Your task to perform on an android device: change keyboard looks Image 0: 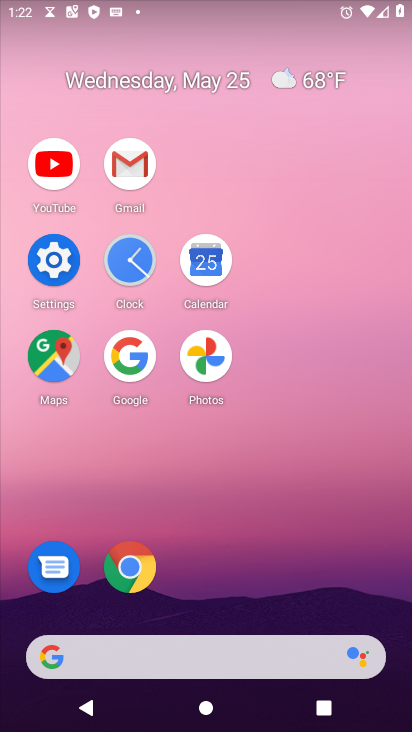
Step 0: click (52, 265)
Your task to perform on an android device: change keyboard looks Image 1: 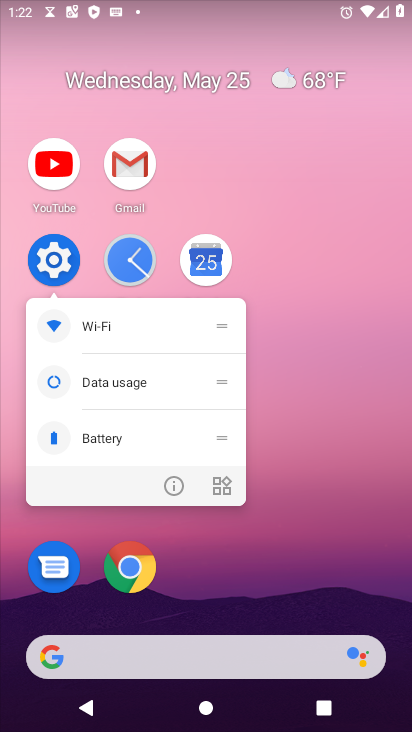
Step 1: click (61, 254)
Your task to perform on an android device: change keyboard looks Image 2: 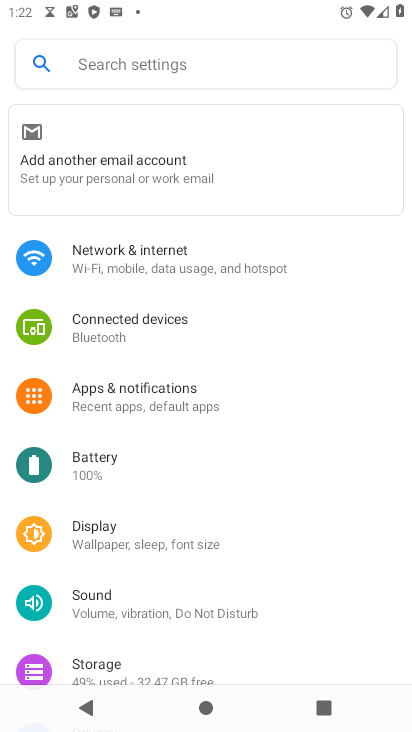
Step 2: drag from (279, 556) to (223, 117)
Your task to perform on an android device: change keyboard looks Image 3: 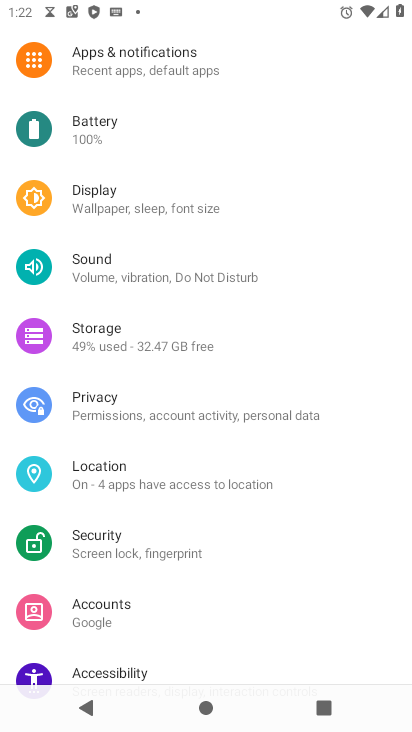
Step 3: drag from (264, 551) to (280, 177)
Your task to perform on an android device: change keyboard looks Image 4: 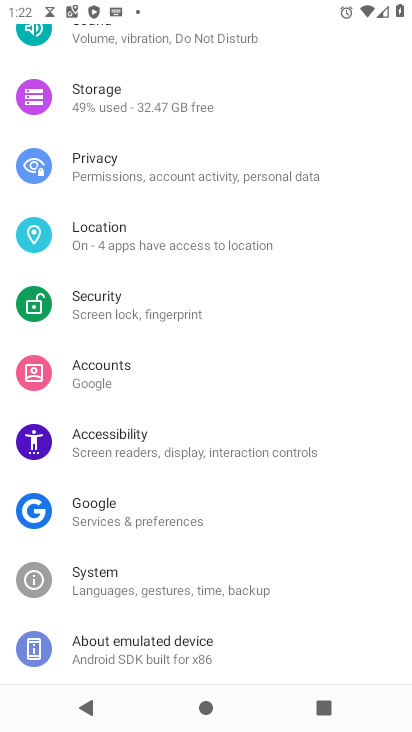
Step 4: drag from (223, 543) to (272, 199)
Your task to perform on an android device: change keyboard looks Image 5: 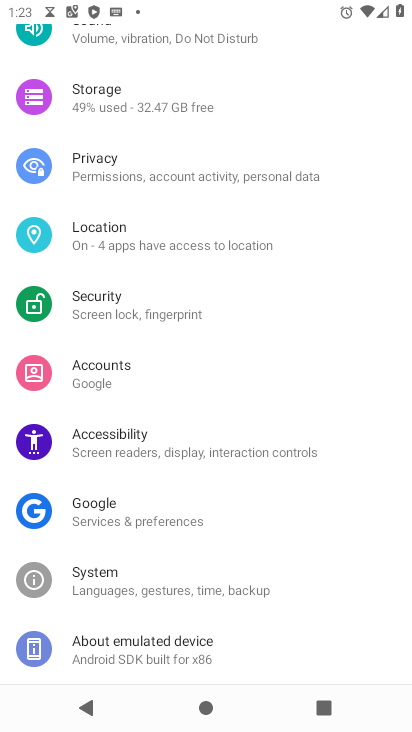
Step 5: click (138, 578)
Your task to perform on an android device: change keyboard looks Image 6: 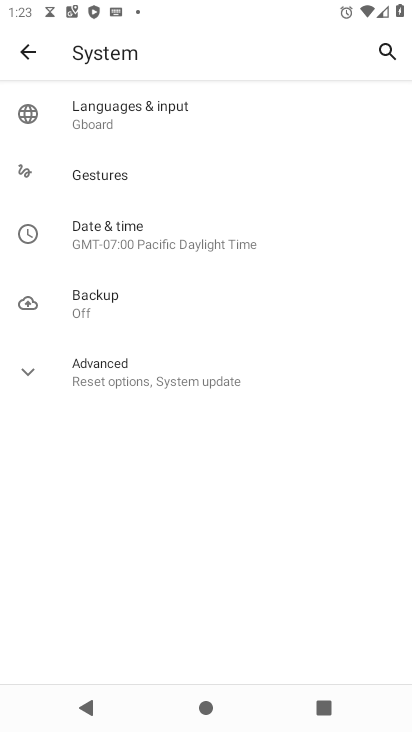
Step 6: click (111, 105)
Your task to perform on an android device: change keyboard looks Image 7: 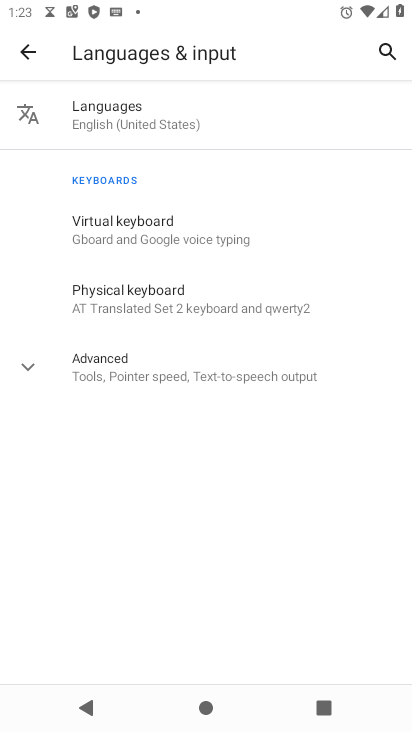
Step 7: click (148, 220)
Your task to perform on an android device: change keyboard looks Image 8: 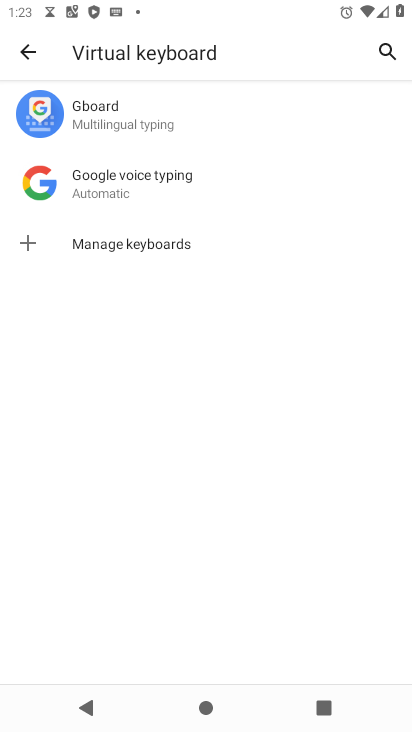
Step 8: click (116, 132)
Your task to perform on an android device: change keyboard looks Image 9: 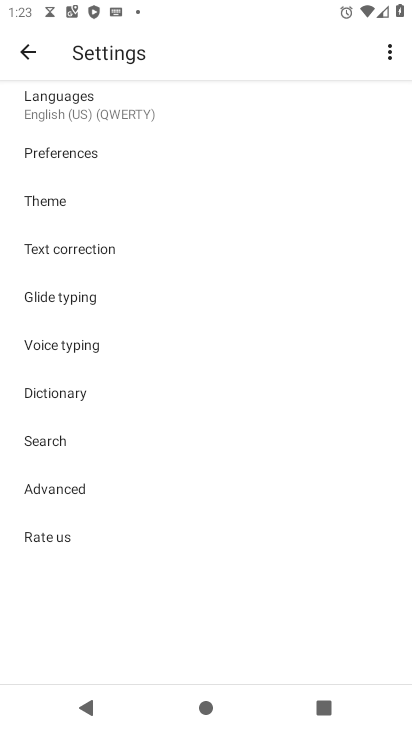
Step 9: click (92, 190)
Your task to perform on an android device: change keyboard looks Image 10: 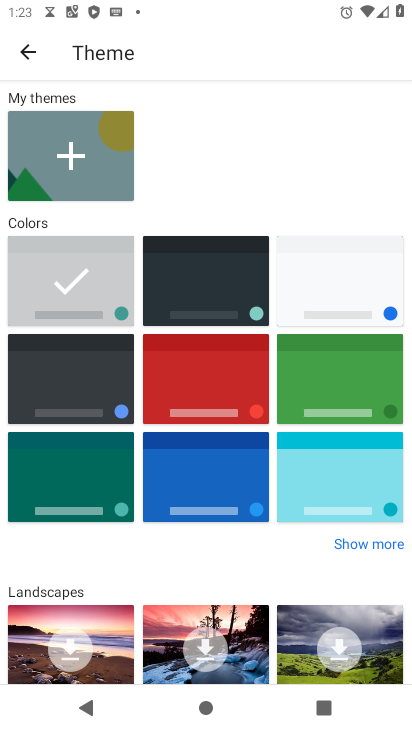
Step 10: click (236, 312)
Your task to perform on an android device: change keyboard looks Image 11: 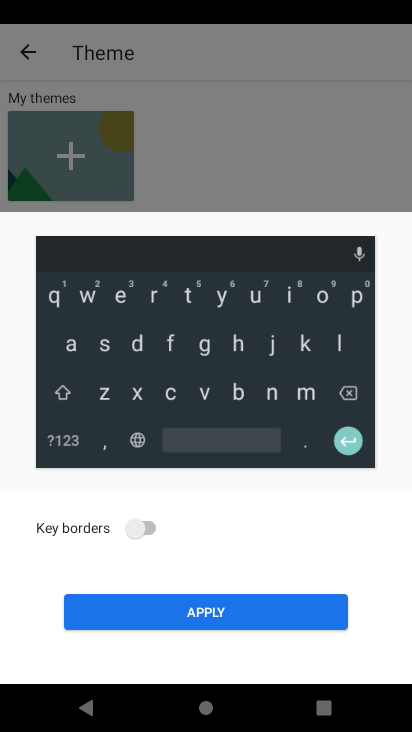
Step 11: click (152, 523)
Your task to perform on an android device: change keyboard looks Image 12: 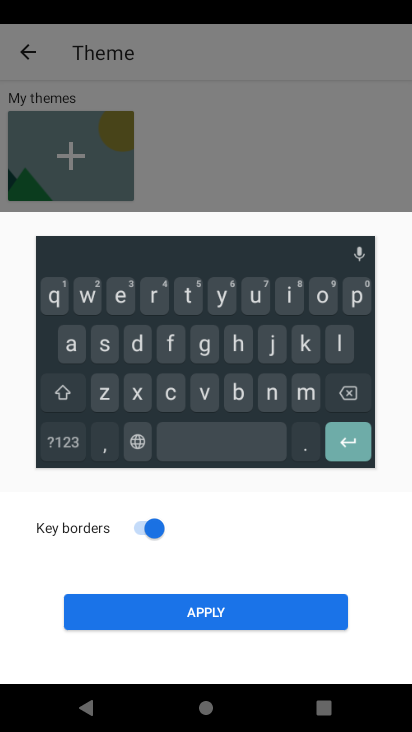
Step 12: click (290, 615)
Your task to perform on an android device: change keyboard looks Image 13: 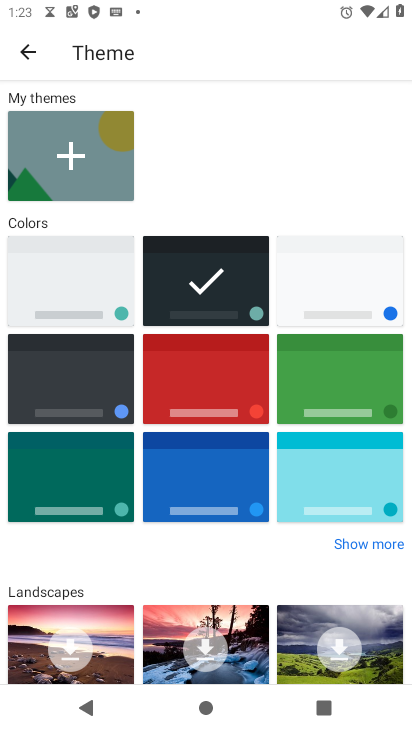
Step 13: task complete